Your task to perform on an android device: Do I have any events tomorrow? Image 0: 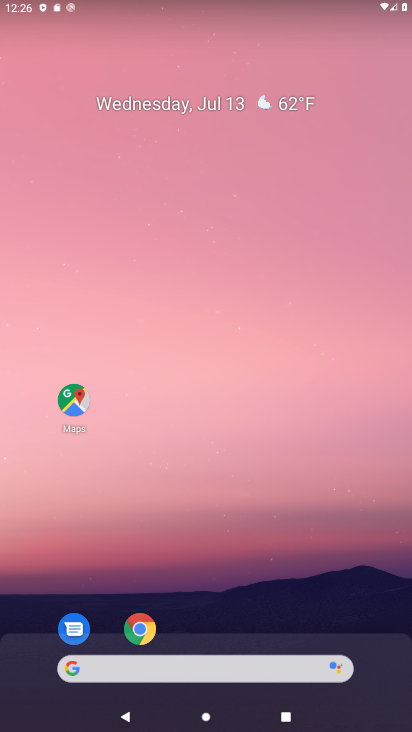
Step 0: drag from (252, 606) to (318, 218)
Your task to perform on an android device: Do I have any events tomorrow? Image 1: 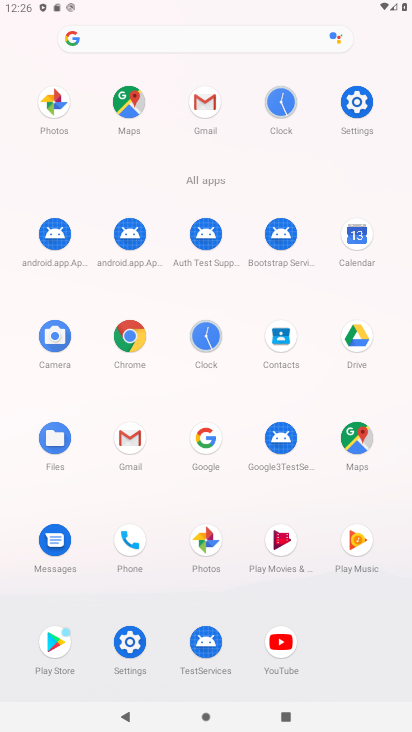
Step 1: click (356, 244)
Your task to perform on an android device: Do I have any events tomorrow? Image 2: 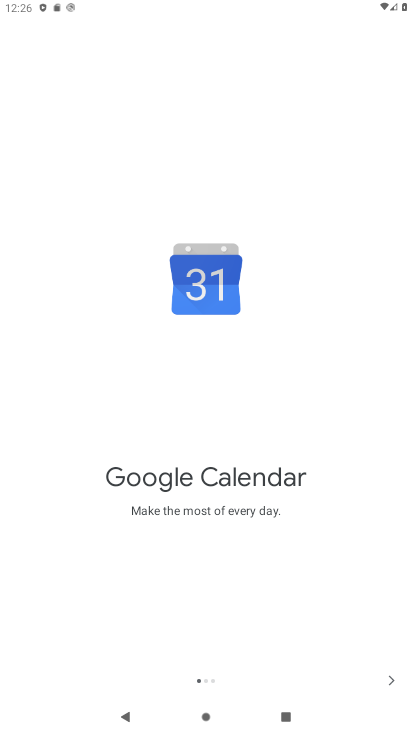
Step 2: click (400, 675)
Your task to perform on an android device: Do I have any events tomorrow? Image 3: 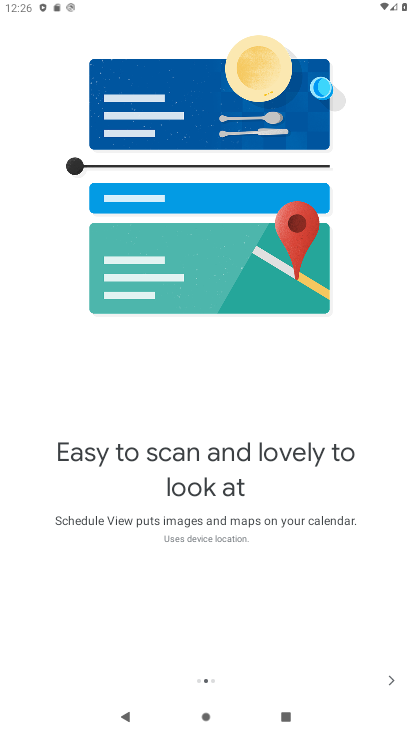
Step 3: click (394, 677)
Your task to perform on an android device: Do I have any events tomorrow? Image 4: 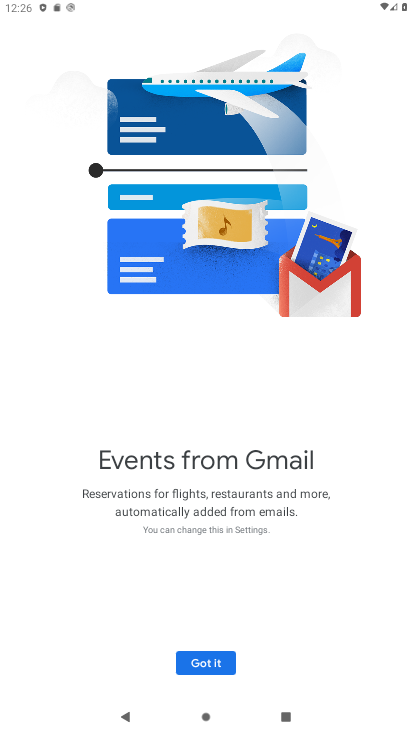
Step 4: click (394, 677)
Your task to perform on an android device: Do I have any events tomorrow? Image 5: 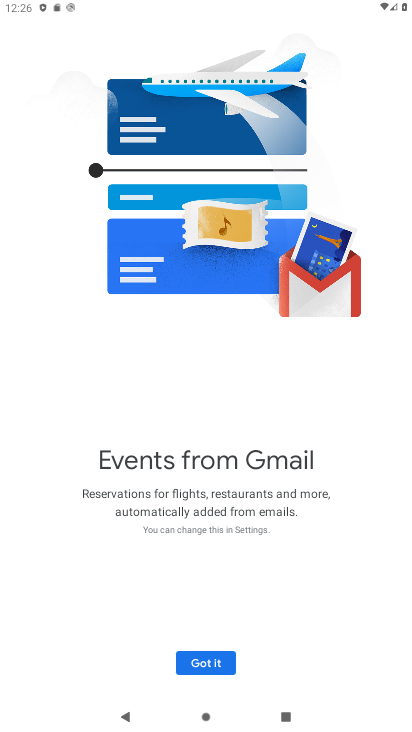
Step 5: click (207, 657)
Your task to perform on an android device: Do I have any events tomorrow? Image 6: 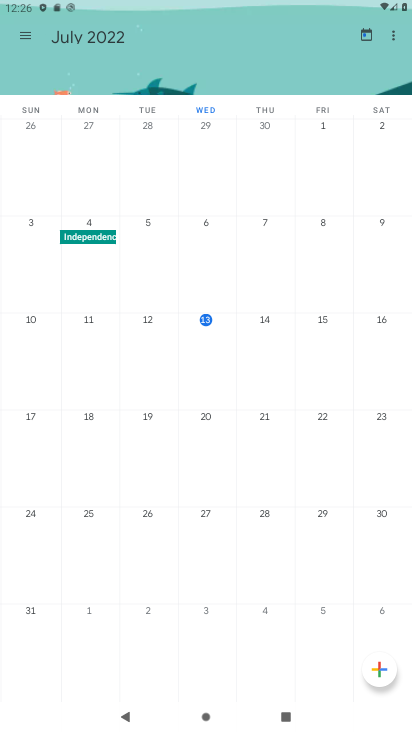
Step 6: click (253, 323)
Your task to perform on an android device: Do I have any events tomorrow? Image 7: 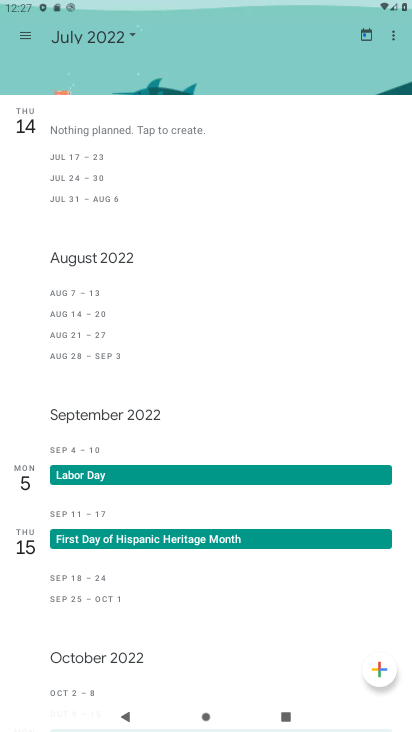
Step 7: task complete